Your task to perform on an android device: Go to calendar. Show me events next week Image 0: 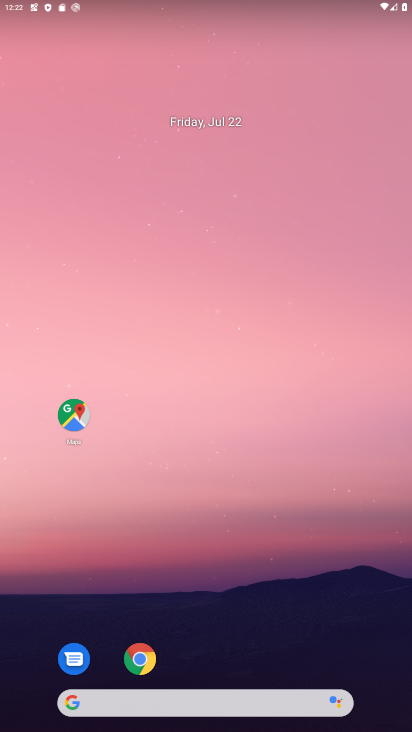
Step 0: drag from (180, 489) to (193, 39)
Your task to perform on an android device: Go to calendar. Show me events next week Image 1: 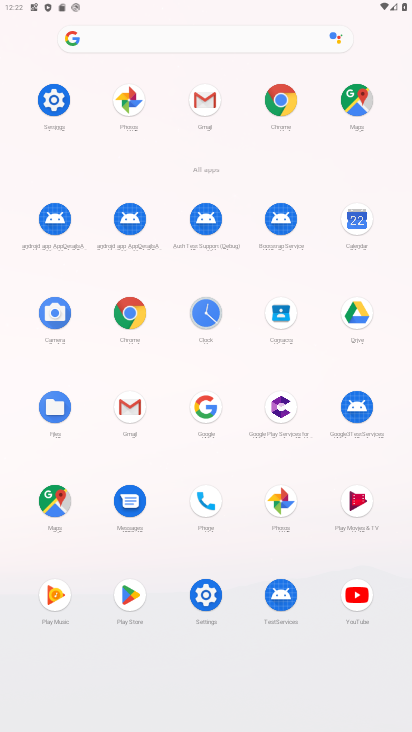
Step 1: click (359, 239)
Your task to perform on an android device: Go to calendar. Show me events next week Image 2: 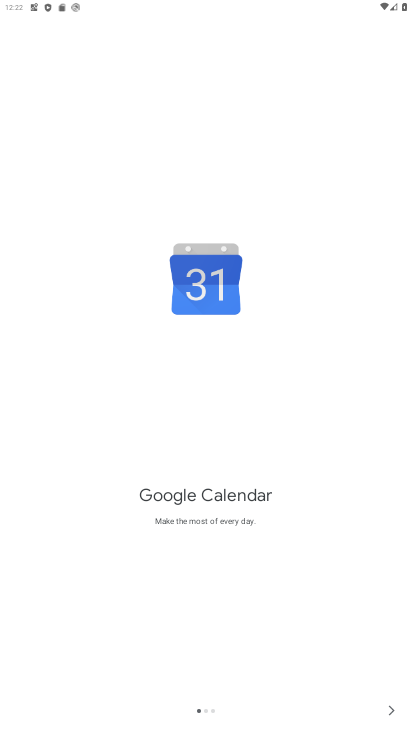
Step 2: click (389, 716)
Your task to perform on an android device: Go to calendar. Show me events next week Image 3: 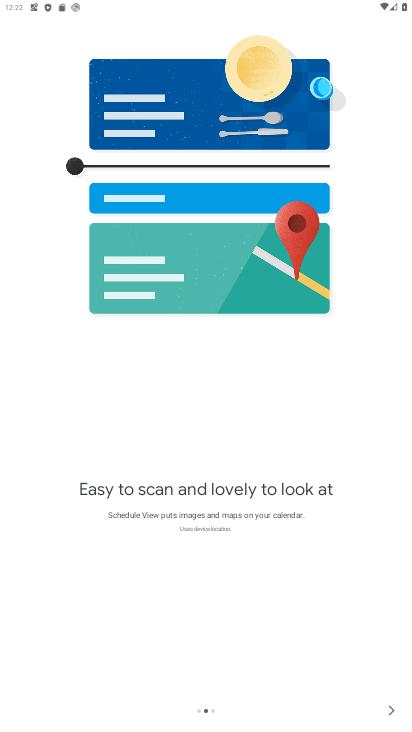
Step 3: click (389, 716)
Your task to perform on an android device: Go to calendar. Show me events next week Image 4: 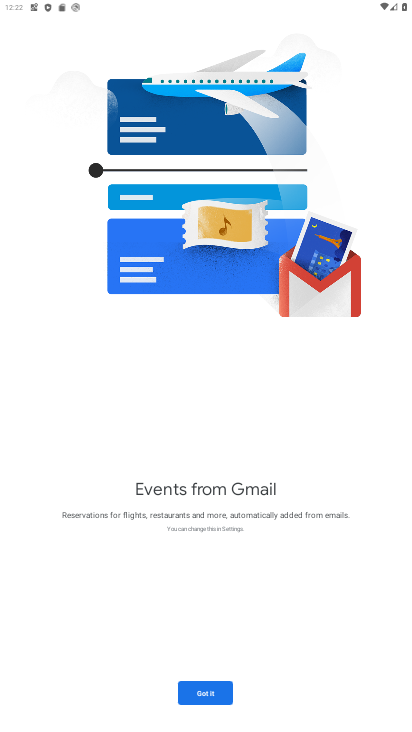
Step 4: click (208, 688)
Your task to perform on an android device: Go to calendar. Show me events next week Image 5: 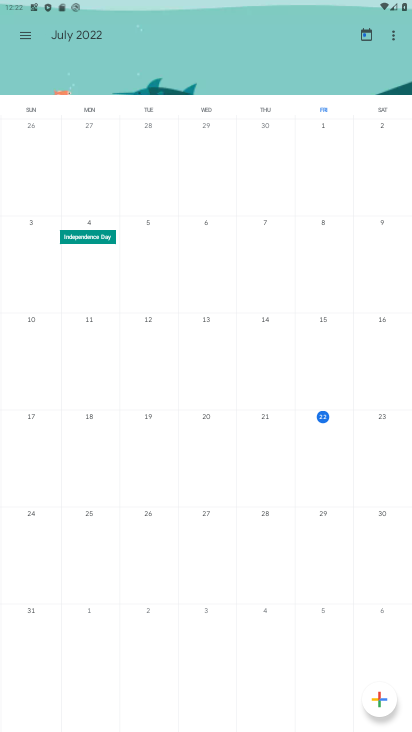
Step 5: task complete